Your task to perform on an android device: set the timer Image 0: 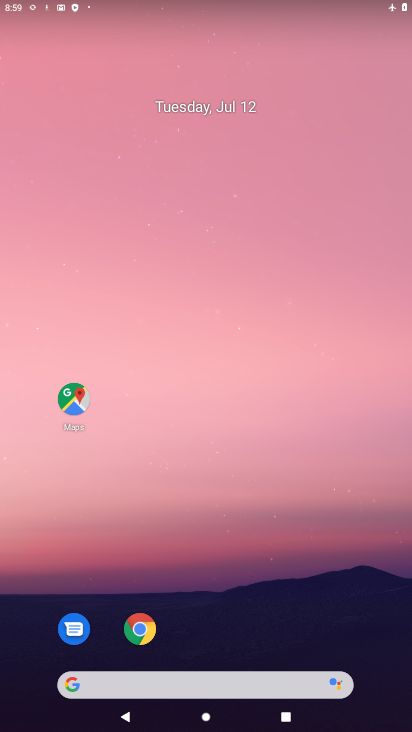
Step 0: drag from (213, 522) to (169, 303)
Your task to perform on an android device: set the timer Image 1: 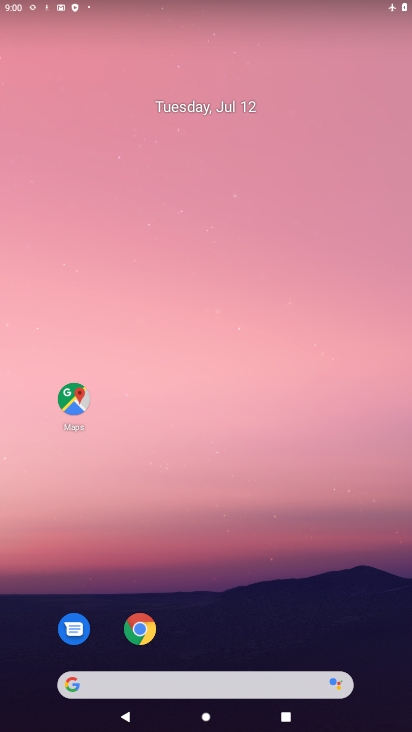
Step 1: drag from (246, 689) to (118, 43)
Your task to perform on an android device: set the timer Image 2: 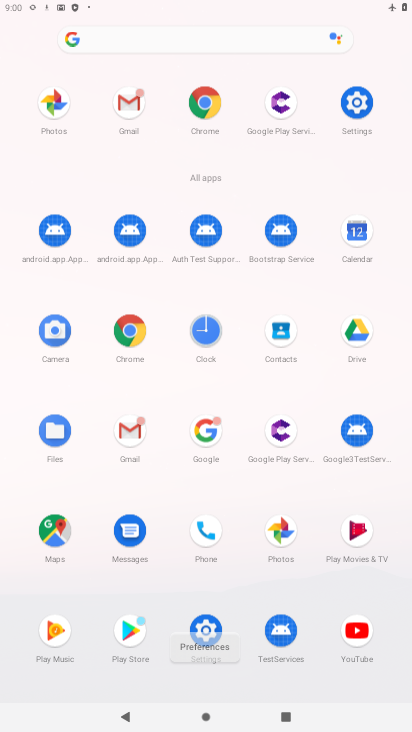
Step 2: drag from (211, 721) to (204, 226)
Your task to perform on an android device: set the timer Image 3: 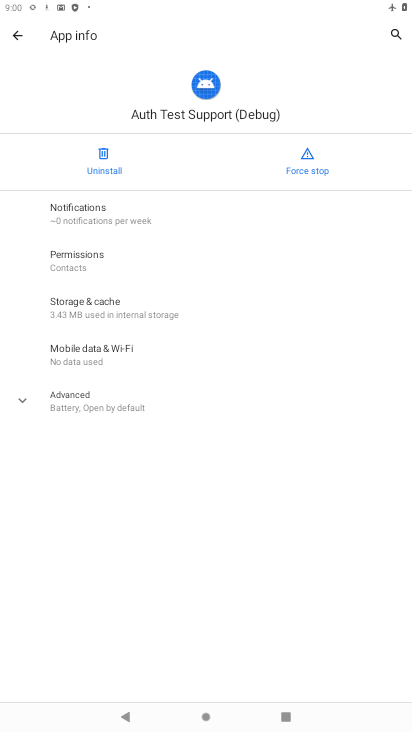
Step 3: click (14, 34)
Your task to perform on an android device: set the timer Image 4: 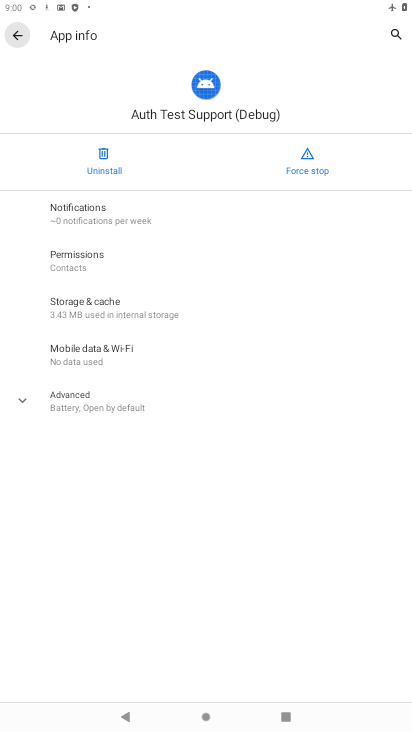
Step 4: click (19, 35)
Your task to perform on an android device: set the timer Image 5: 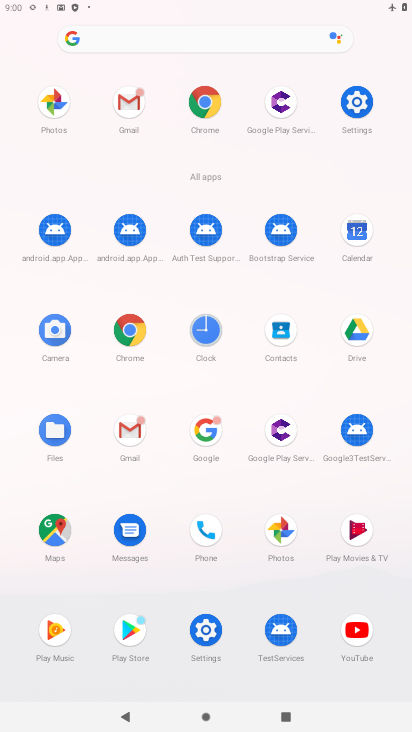
Step 5: click (204, 336)
Your task to perform on an android device: set the timer Image 6: 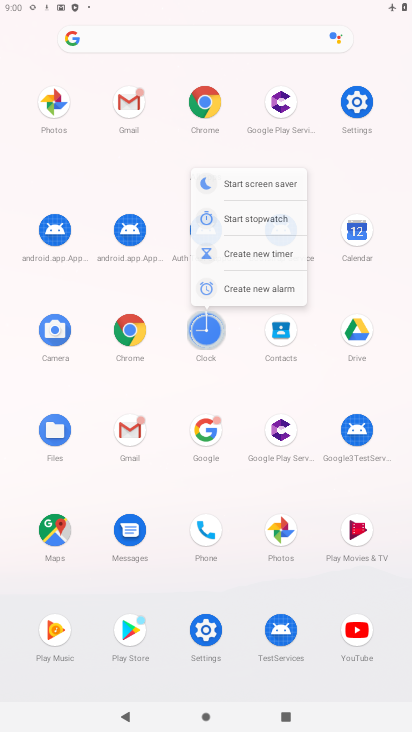
Step 6: click (212, 331)
Your task to perform on an android device: set the timer Image 7: 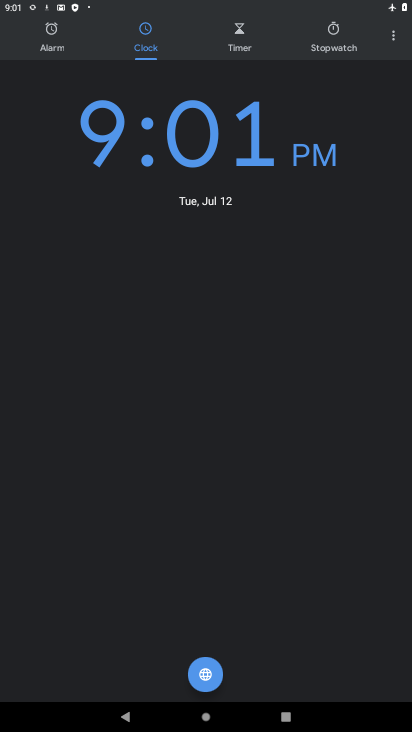
Step 7: click (317, 49)
Your task to perform on an android device: set the timer Image 8: 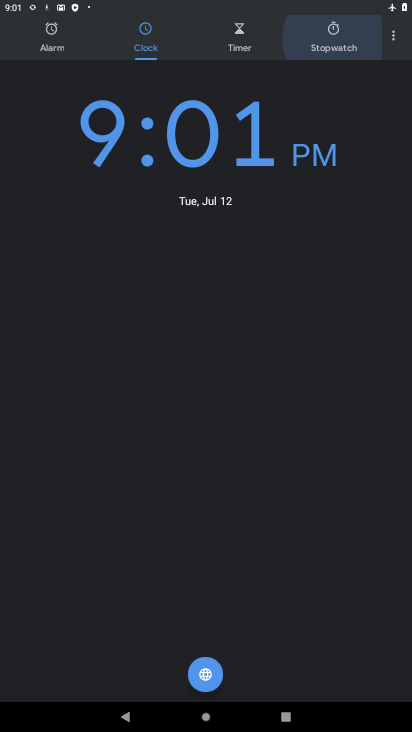
Step 8: drag from (331, 46) to (198, 668)
Your task to perform on an android device: set the timer Image 9: 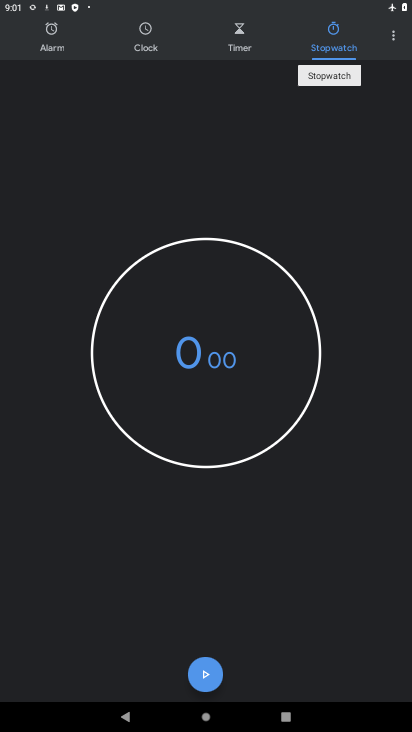
Step 9: click (197, 664)
Your task to perform on an android device: set the timer Image 10: 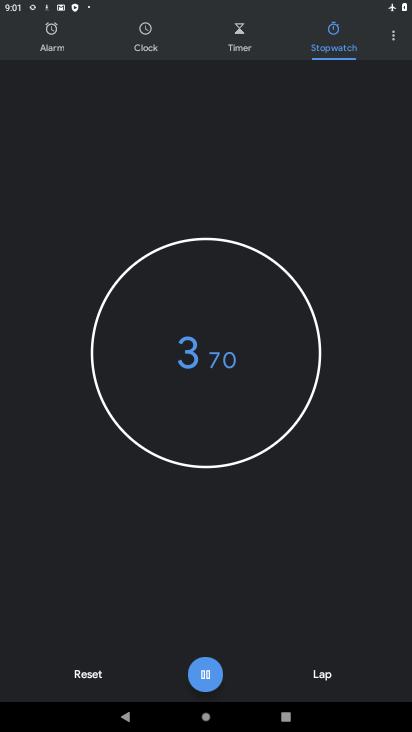
Step 10: click (223, 672)
Your task to perform on an android device: set the timer Image 11: 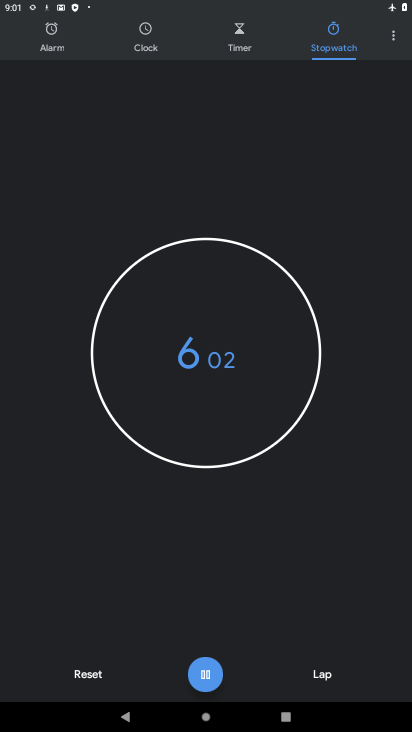
Step 11: click (202, 677)
Your task to perform on an android device: set the timer Image 12: 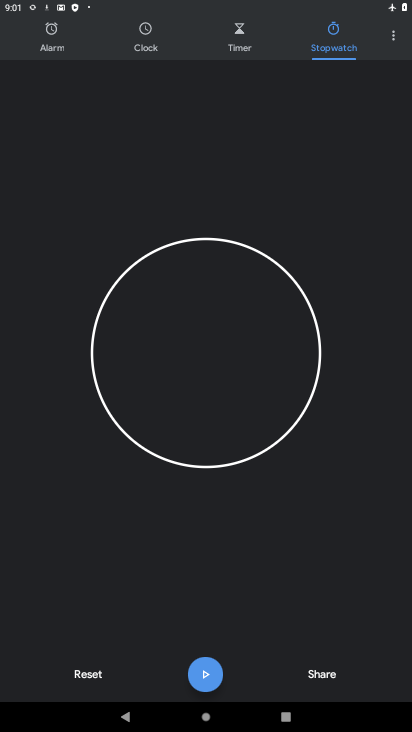
Step 12: task complete